Your task to perform on an android device: allow notifications from all sites in the chrome app Image 0: 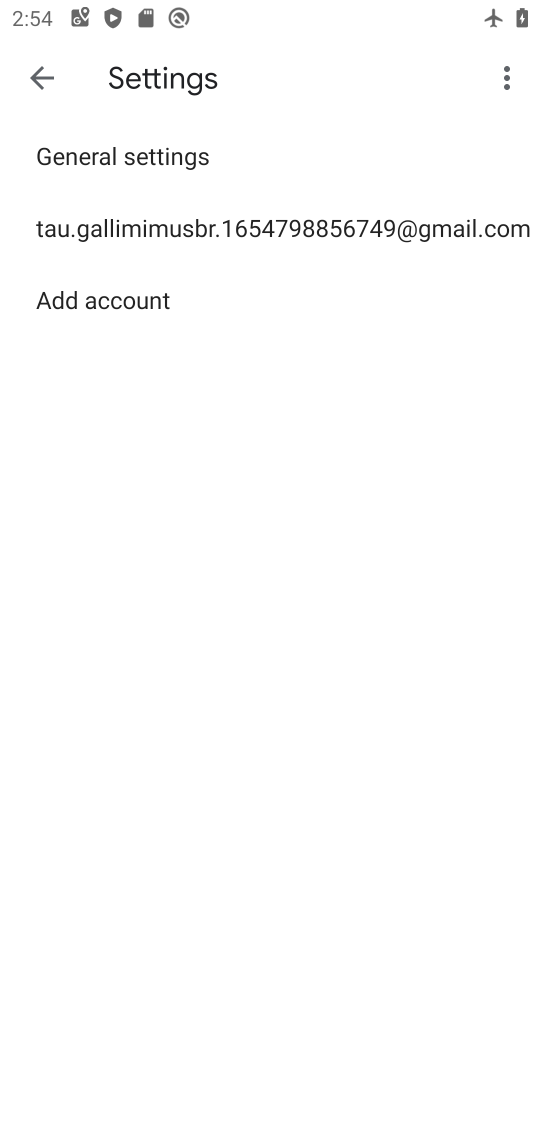
Step 0: press home button
Your task to perform on an android device: allow notifications from all sites in the chrome app Image 1: 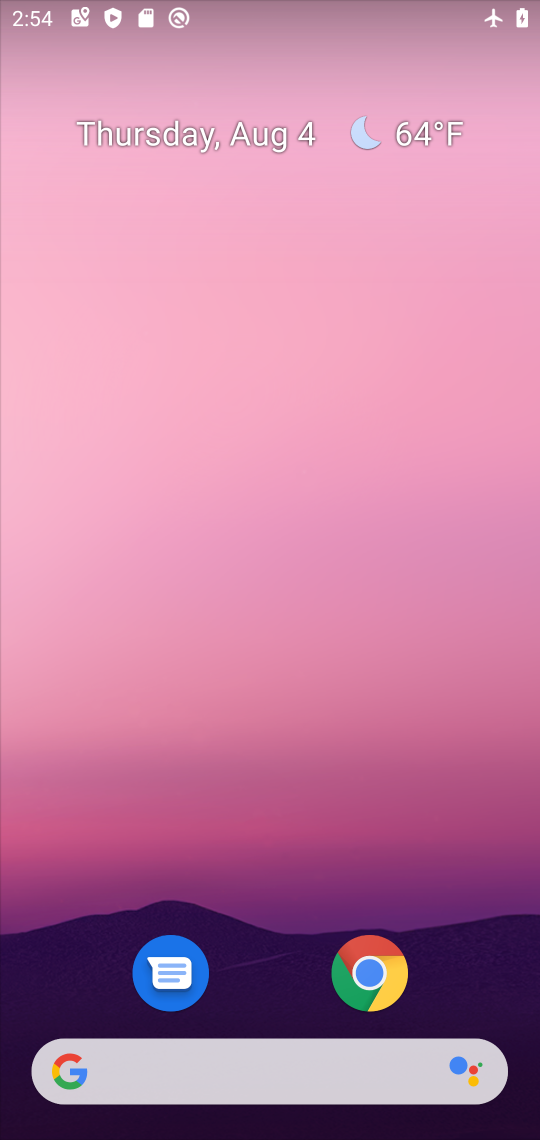
Step 1: drag from (293, 681) to (293, 65)
Your task to perform on an android device: allow notifications from all sites in the chrome app Image 2: 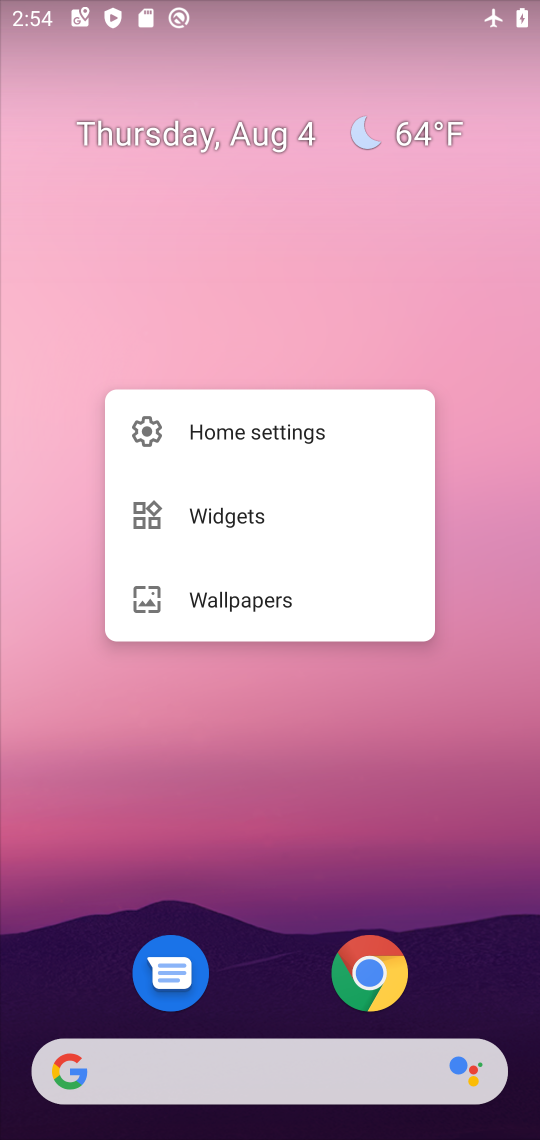
Step 2: click (382, 877)
Your task to perform on an android device: allow notifications from all sites in the chrome app Image 3: 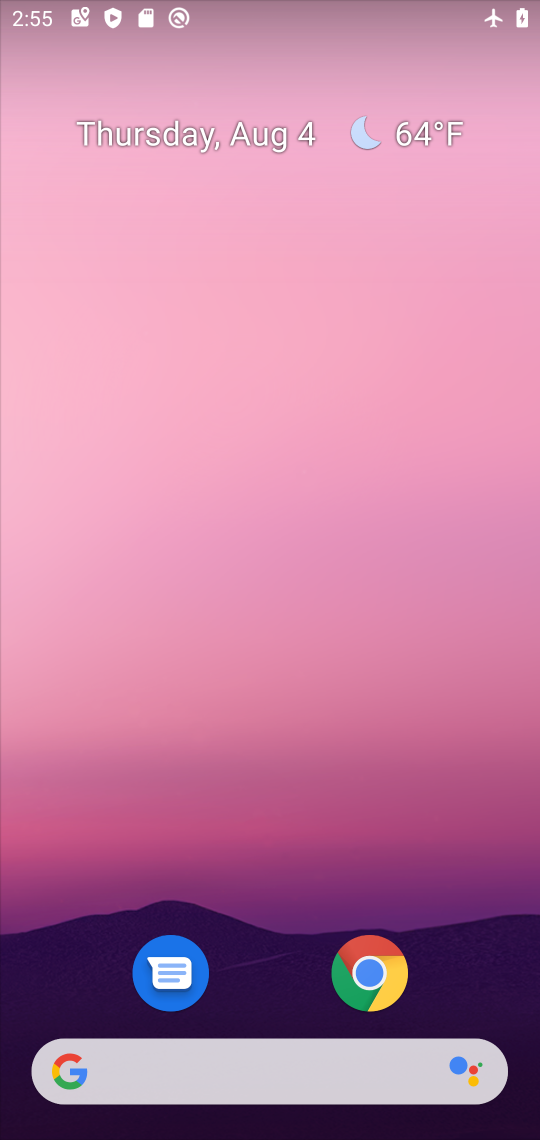
Step 3: drag from (311, 970) to (275, 67)
Your task to perform on an android device: allow notifications from all sites in the chrome app Image 4: 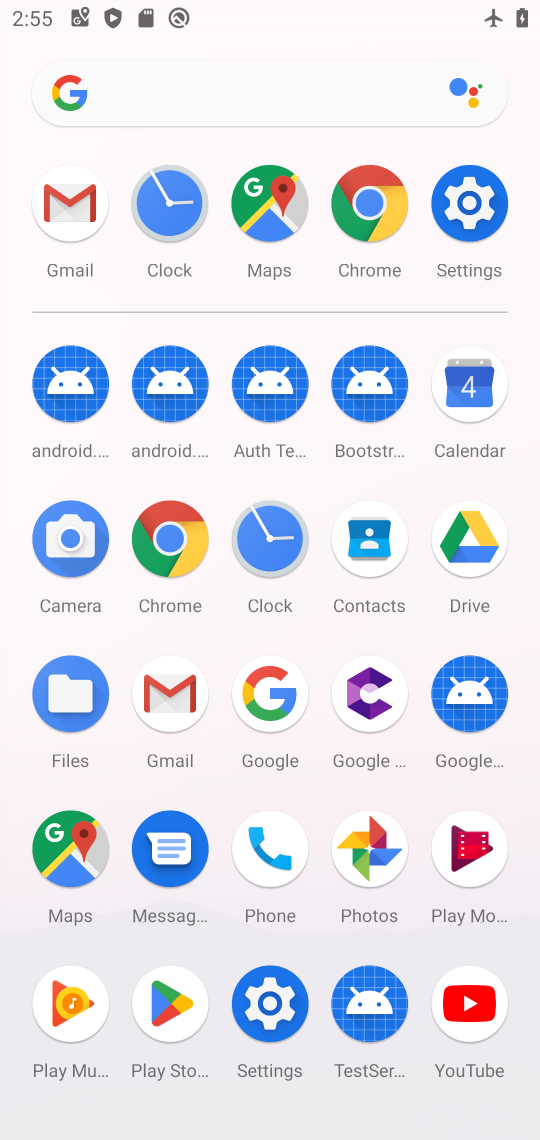
Step 4: click (169, 547)
Your task to perform on an android device: allow notifications from all sites in the chrome app Image 5: 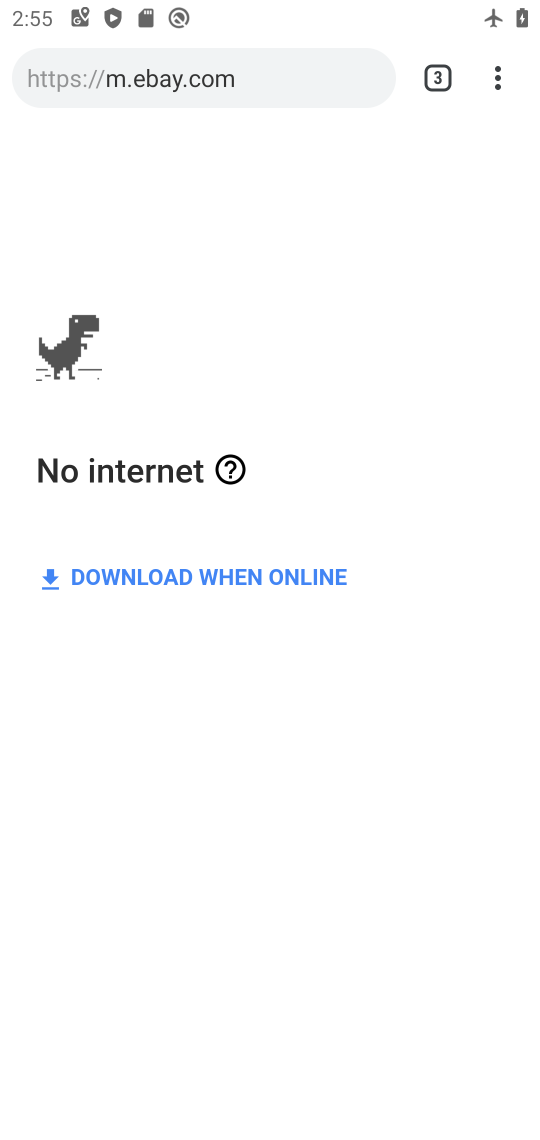
Step 5: drag from (497, 80) to (238, 865)
Your task to perform on an android device: allow notifications from all sites in the chrome app Image 6: 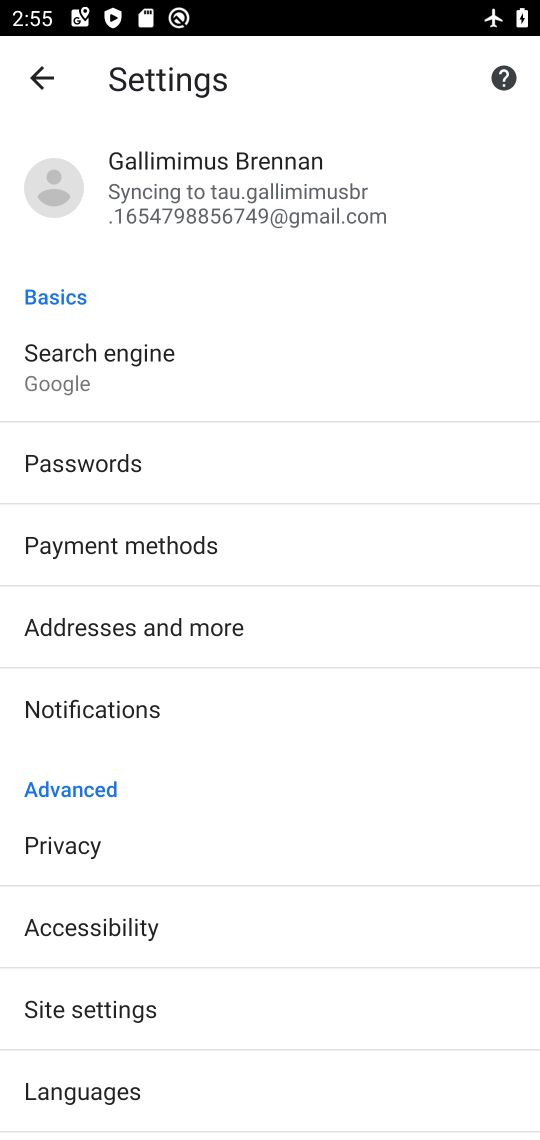
Step 6: click (126, 1013)
Your task to perform on an android device: allow notifications from all sites in the chrome app Image 7: 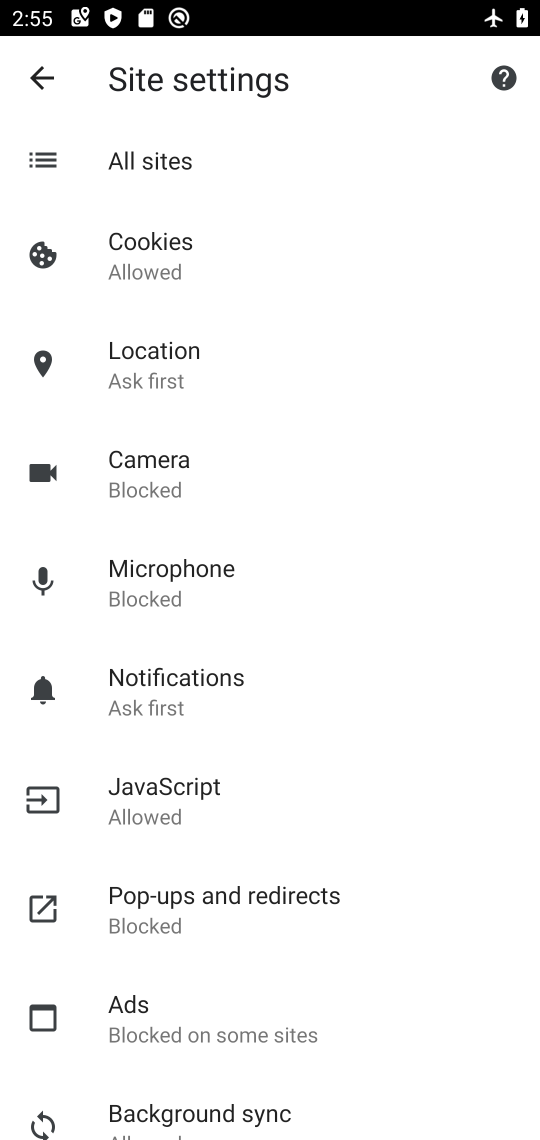
Step 7: drag from (201, 842) to (219, 271)
Your task to perform on an android device: allow notifications from all sites in the chrome app Image 8: 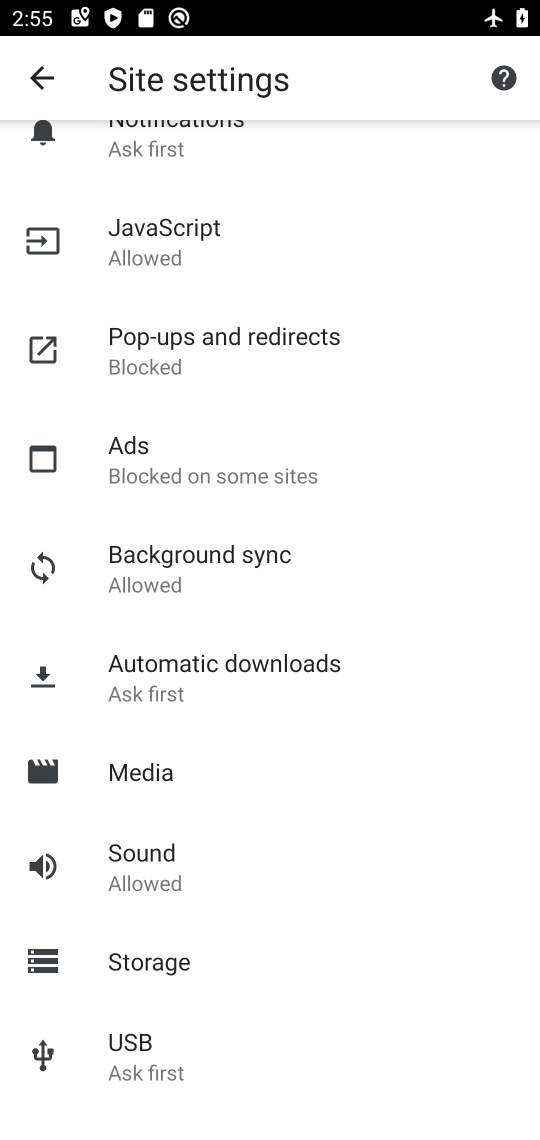
Step 8: drag from (230, 246) to (230, 702)
Your task to perform on an android device: allow notifications from all sites in the chrome app Image 9: 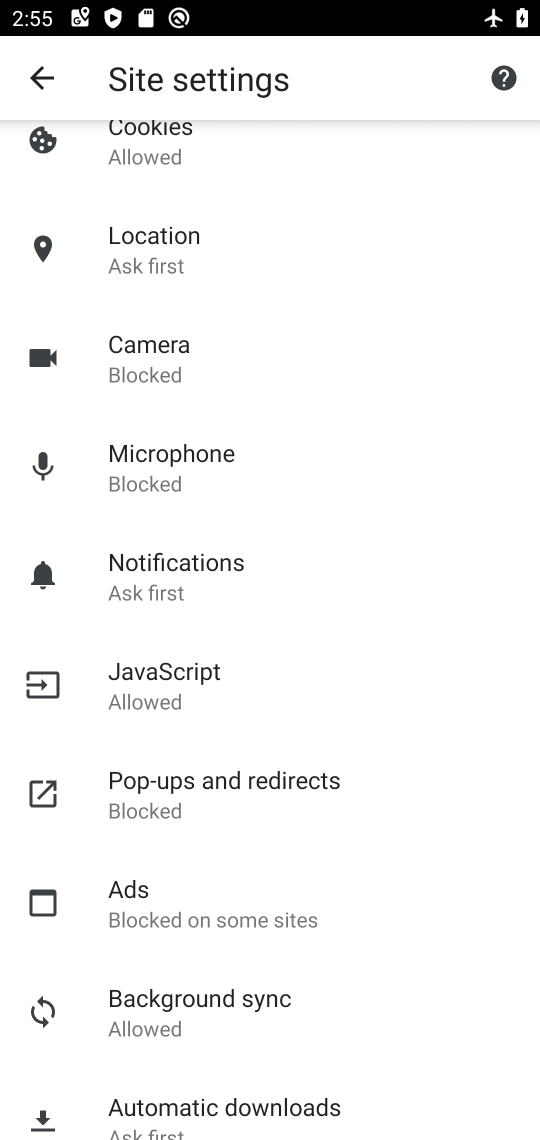
Step 9: click (201, 561)
Your task to perform on an android device: allow notifications from all sites in the chrome app Image 10: 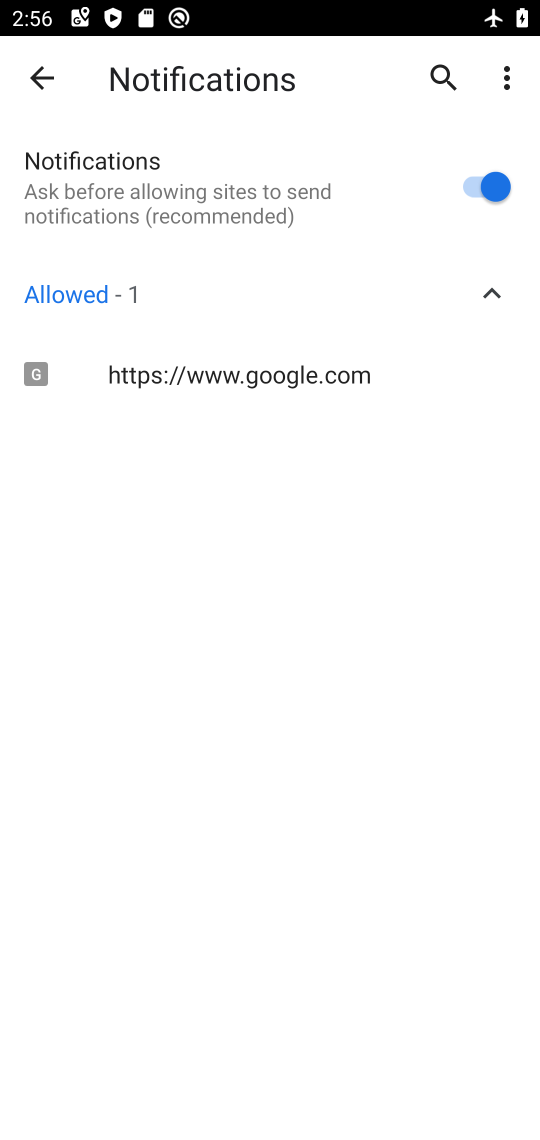
Step 10: task complete